Your task to perform on an android device: turn on translation in the chrome app Image 0: 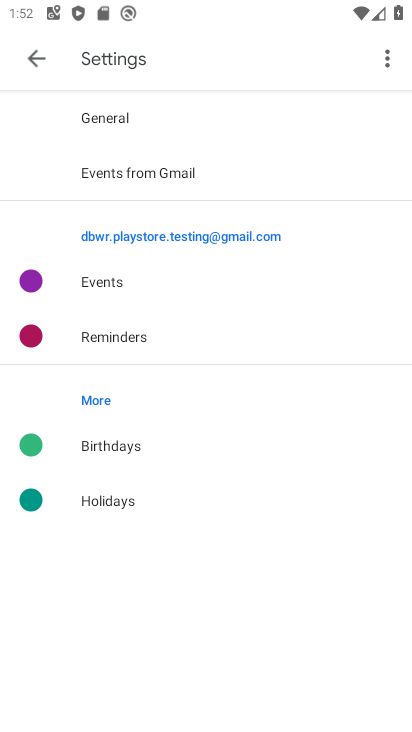
Step 0: press home button
Your task to perform on an android device: turn on translation in the chrome app Image 1: 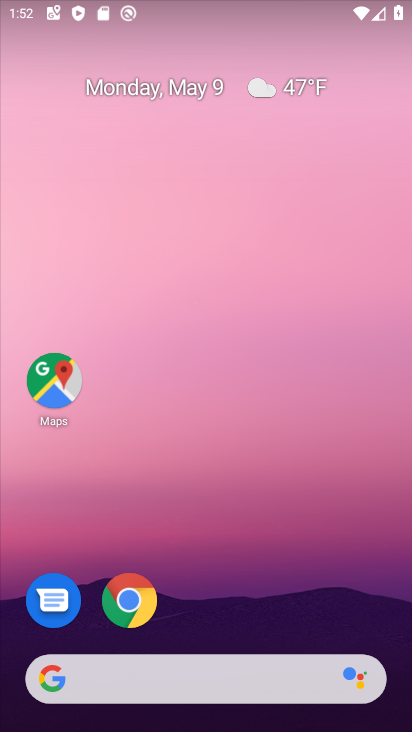
Step 1: click (122, 616)
Your task to perform on an android device: turn on translation in the chrome app Image 2: 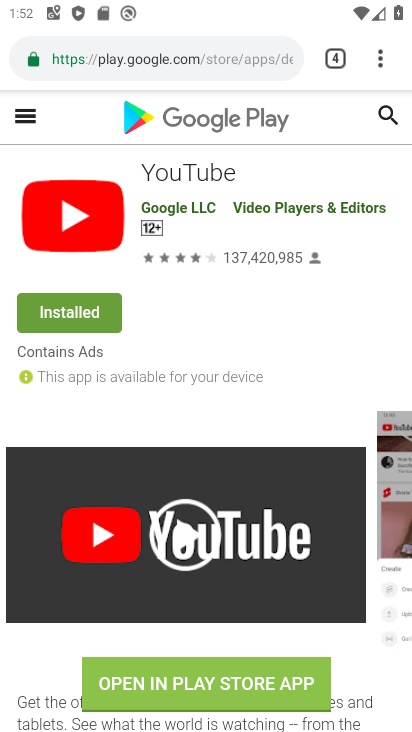
Step 2: click (373, 60)
Your task to perform on an android device: turn on translation in the chrome app Image 3: 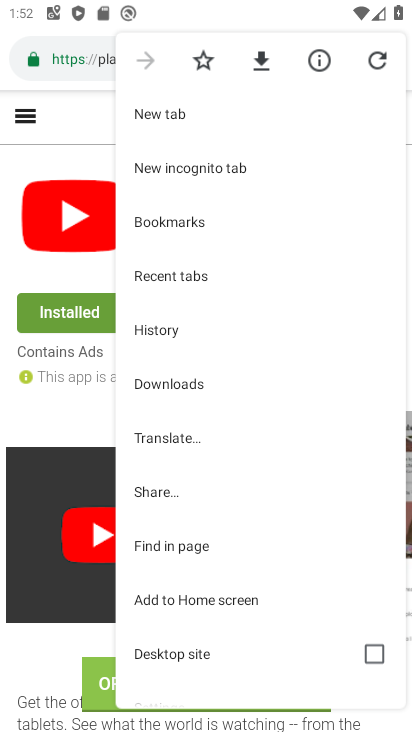
Step 3: drag from (184, 583) to (217, 177)
Your task to perform on an android device: turn on translation in the chrome app Image 4: 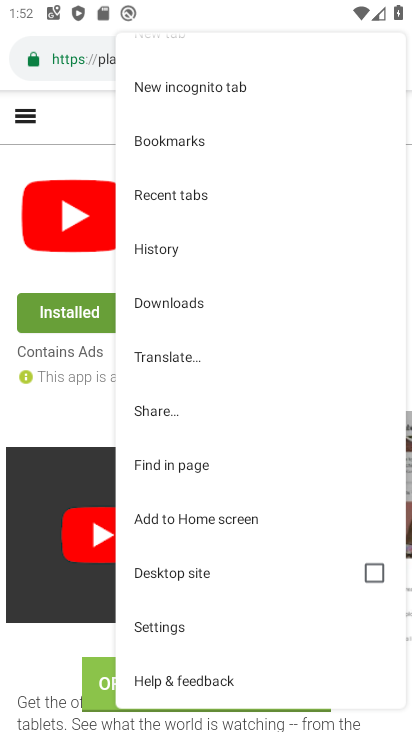
Step 4: click (200, 634)
Your task to perform on an android device: turn on translation in the chrome app Image 5: 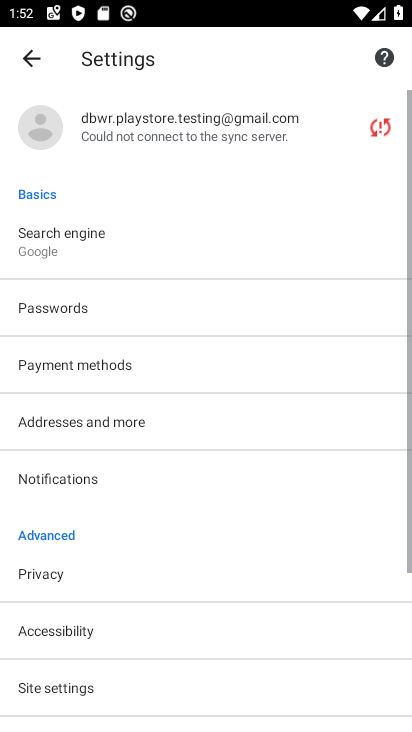
Step 5: drag from (200, 634) to (267, 305)
Your task to perform on an android device: turn on translation in the chrome app Image 6: 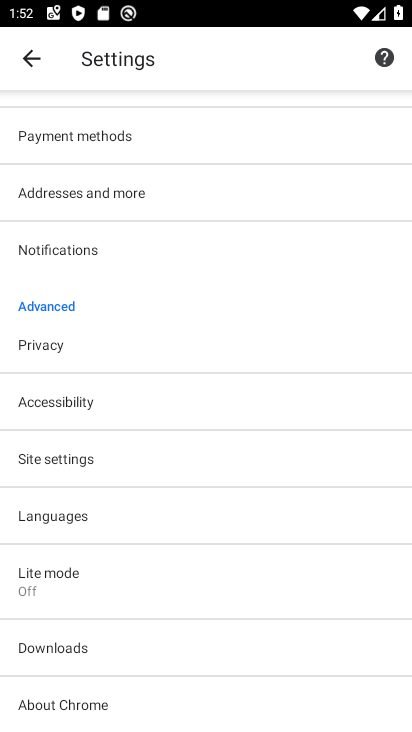
Step 6: click (75, 521)
Your task to perform on an android device: turn on translation in the chrome app Image 7: 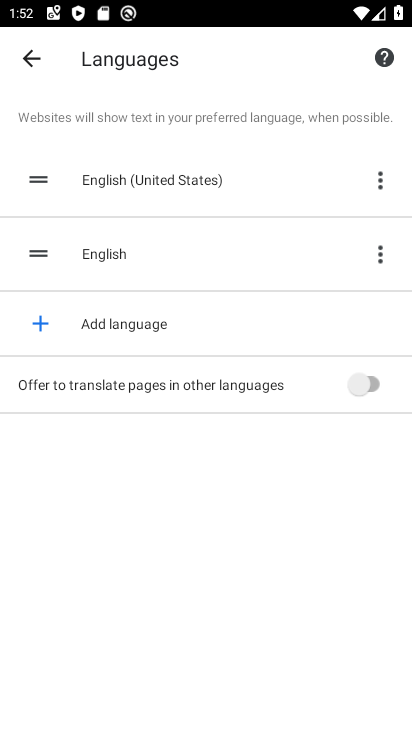
Step 7: click (377, 383)
Your task to perform on an android device: turn on translation in the chrome app Image 8: 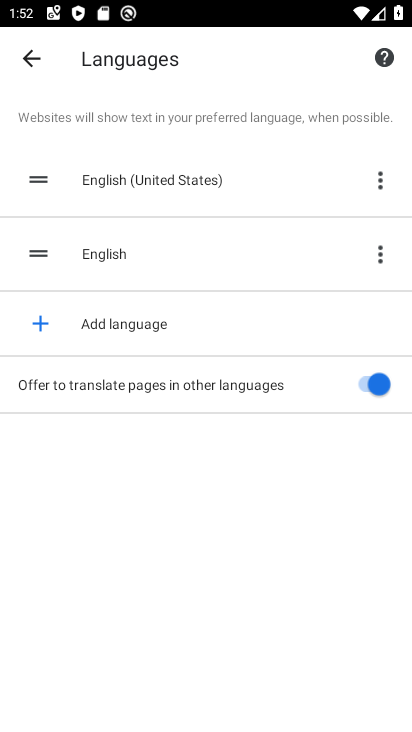
Step 8: task complete